Your task to perform on an android device: View the shopping cart on costco.com. Add "logitech g910" to the cart on costco.com Image 0: 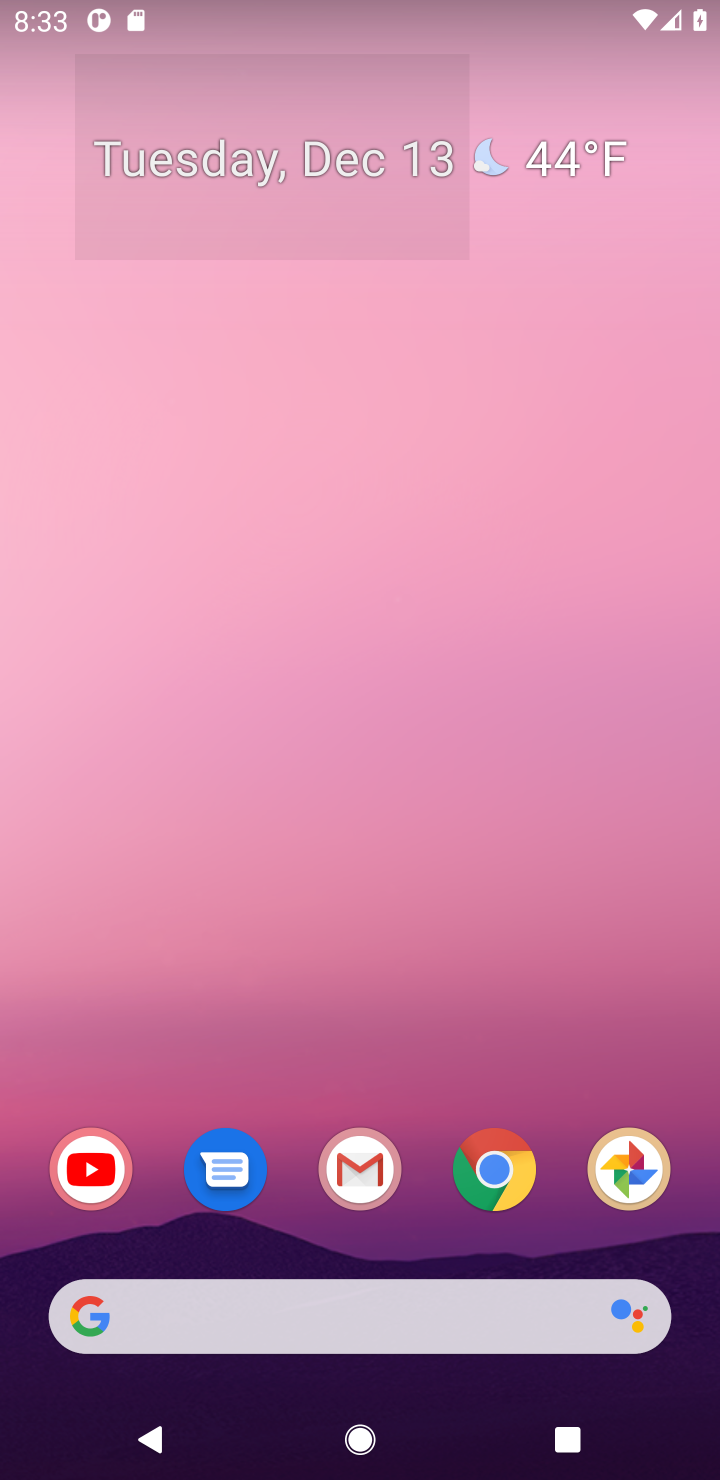
Step 0: click (476, 1197)
Your task to perform on an android device: View the shopping cart on costco.com. Add "logitech g910" to the cart on costco.com Image 1: 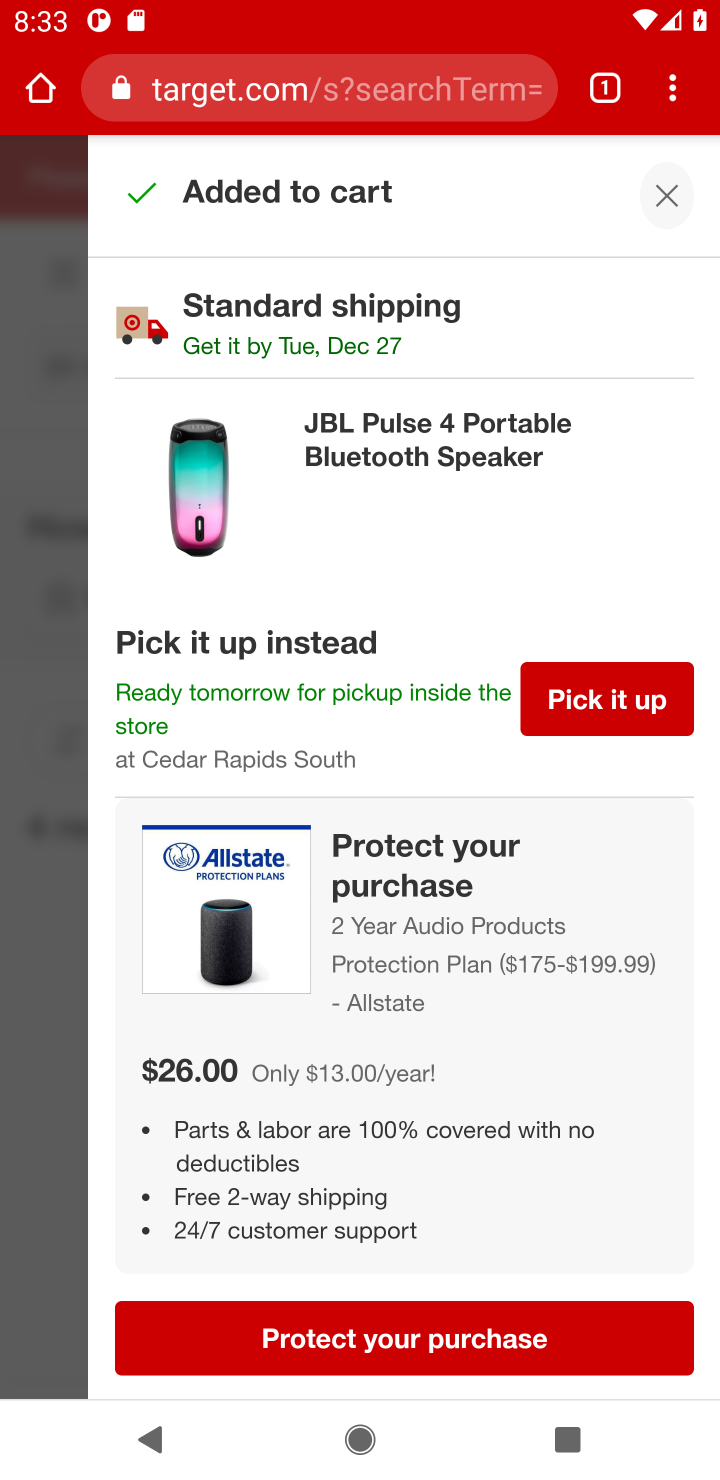
Step 1: click (663, 201)
Your task to perform on an android device: View the shopping cart on costco.com. Add "logitech g910" to the cart on costco.com Image 2: 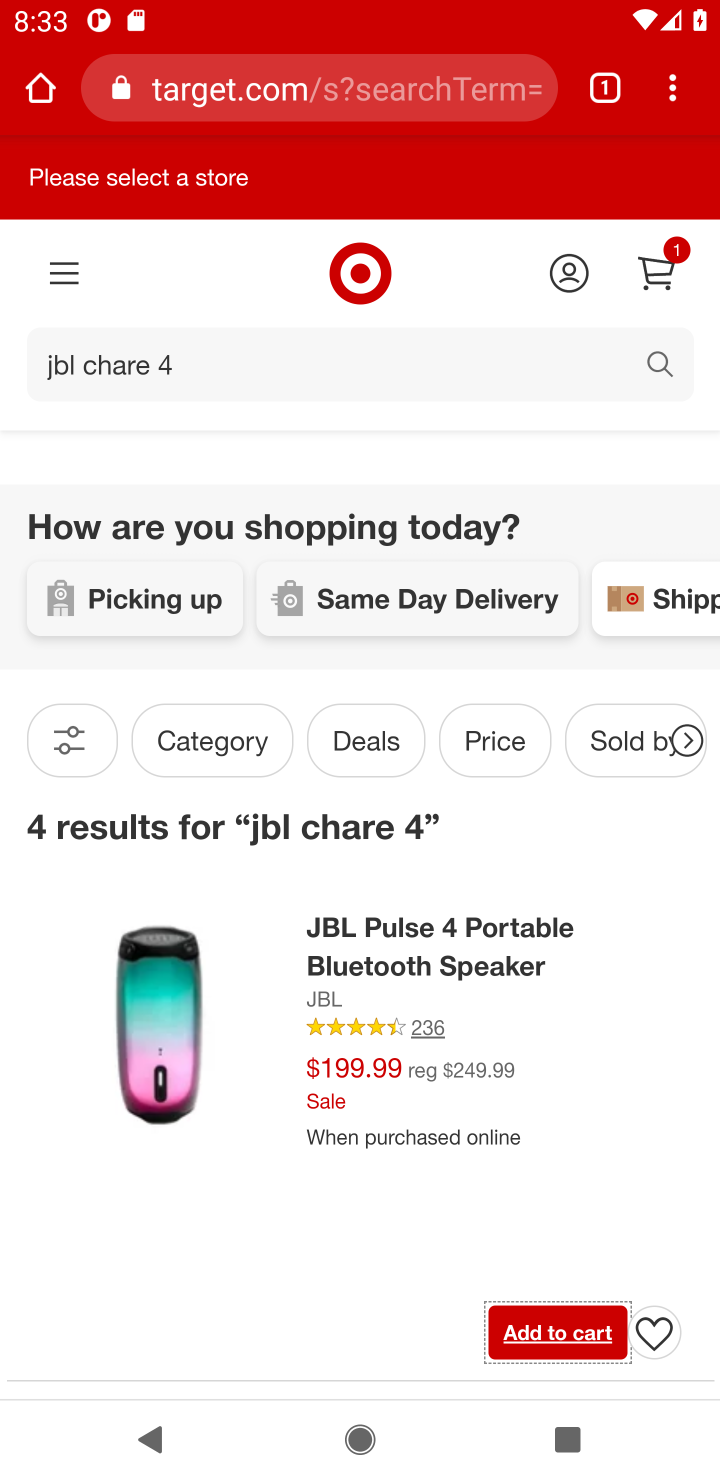
Step 2: click (289, 346)
Your task to perform on an android device: View the shopping cart on costco.com. Add "logitech g910" to the cart on costco.com Image 3: 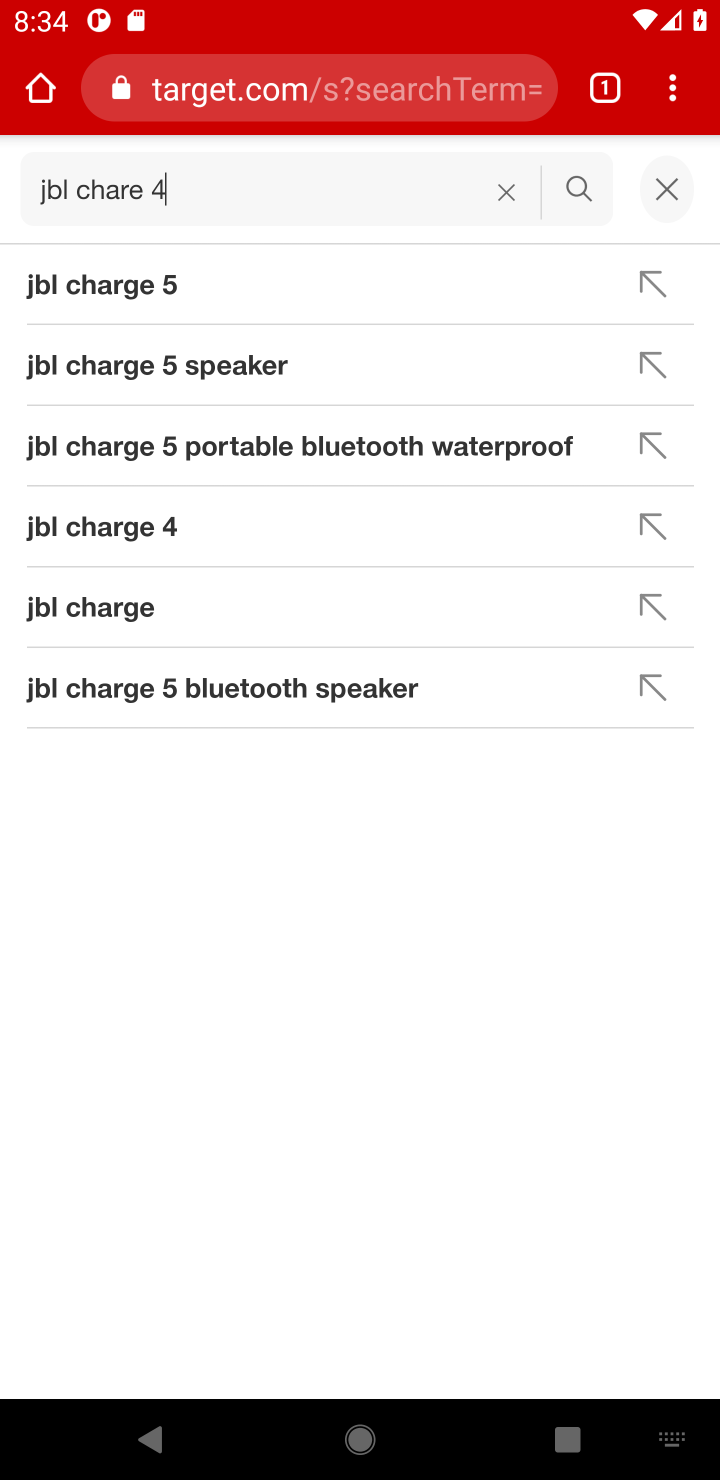
Step 3: type "logitech g910"
Your task to perform on an android device: View the shopping cart on costco.com. Add "logitech g910" to the cart on costco.com Image 4: 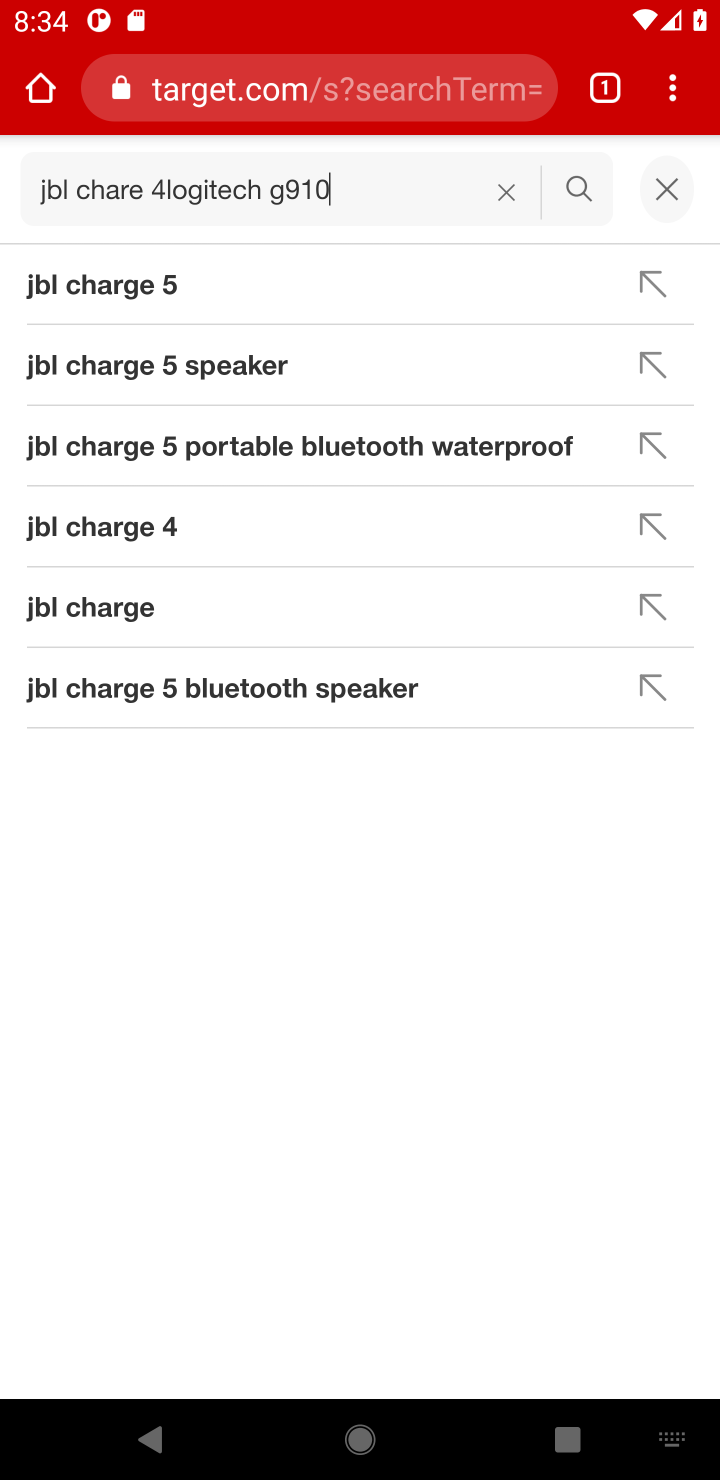
Step 4: click (500, 205)
Your task to perform on an android device: View the shopping cart on costco.com. Add "logitech g910" to the cart on costco.com Image 5: 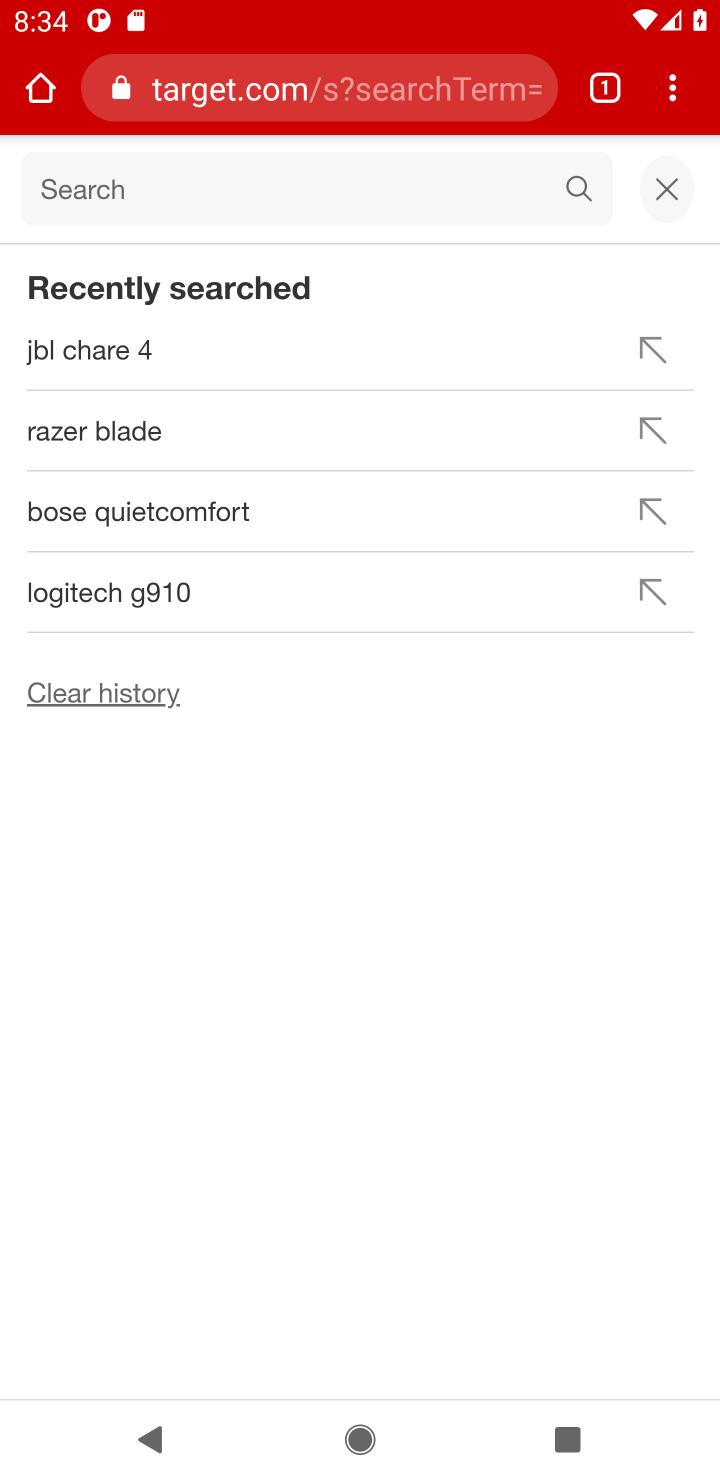
Step 5: type "logitech g910"
Your task to perform on an android device: View the shopping cart on costco.com. Add "logitech g910" to the cart on costco.com Image 6: 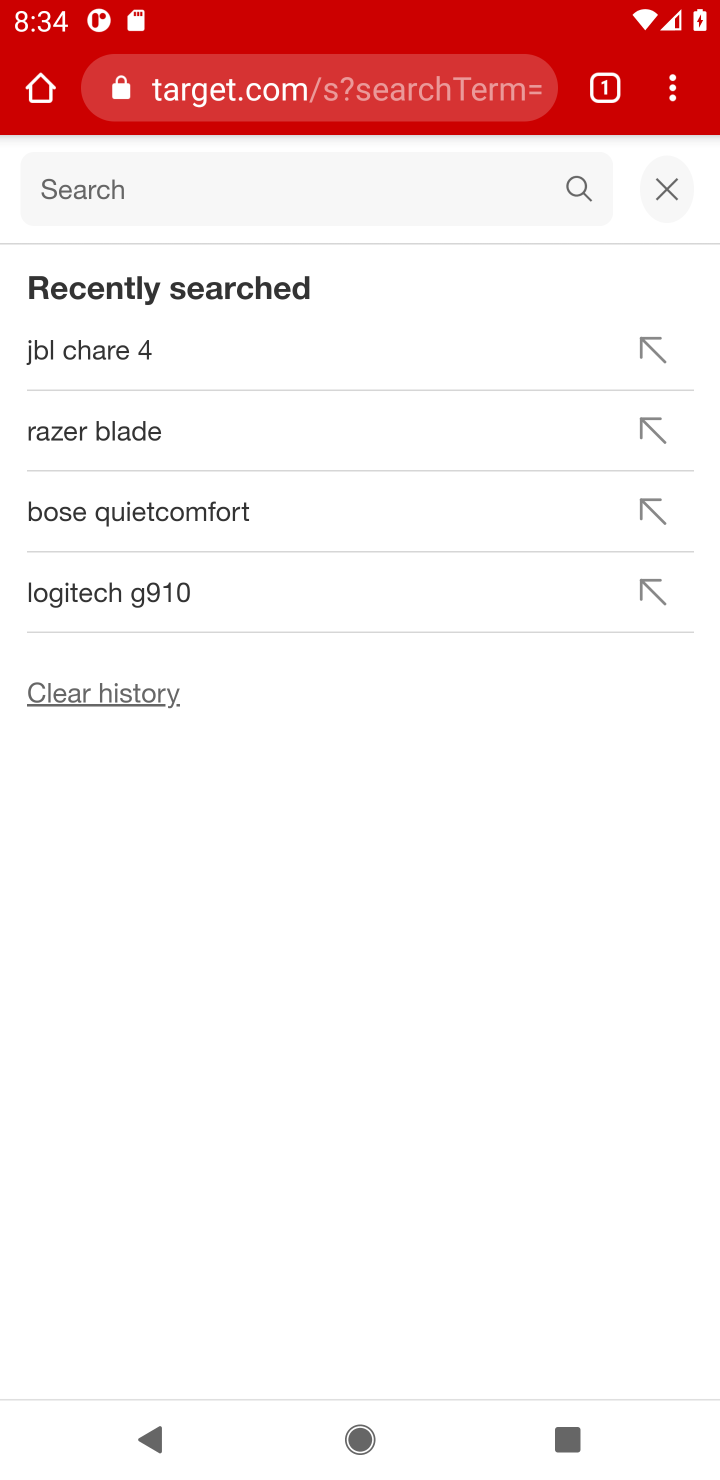
Step 6: click (189, 205)
Your task to perform on an android device: View the shopping cart on costco.com. Add "logitech g910" to the cart on costco.com Image 7: 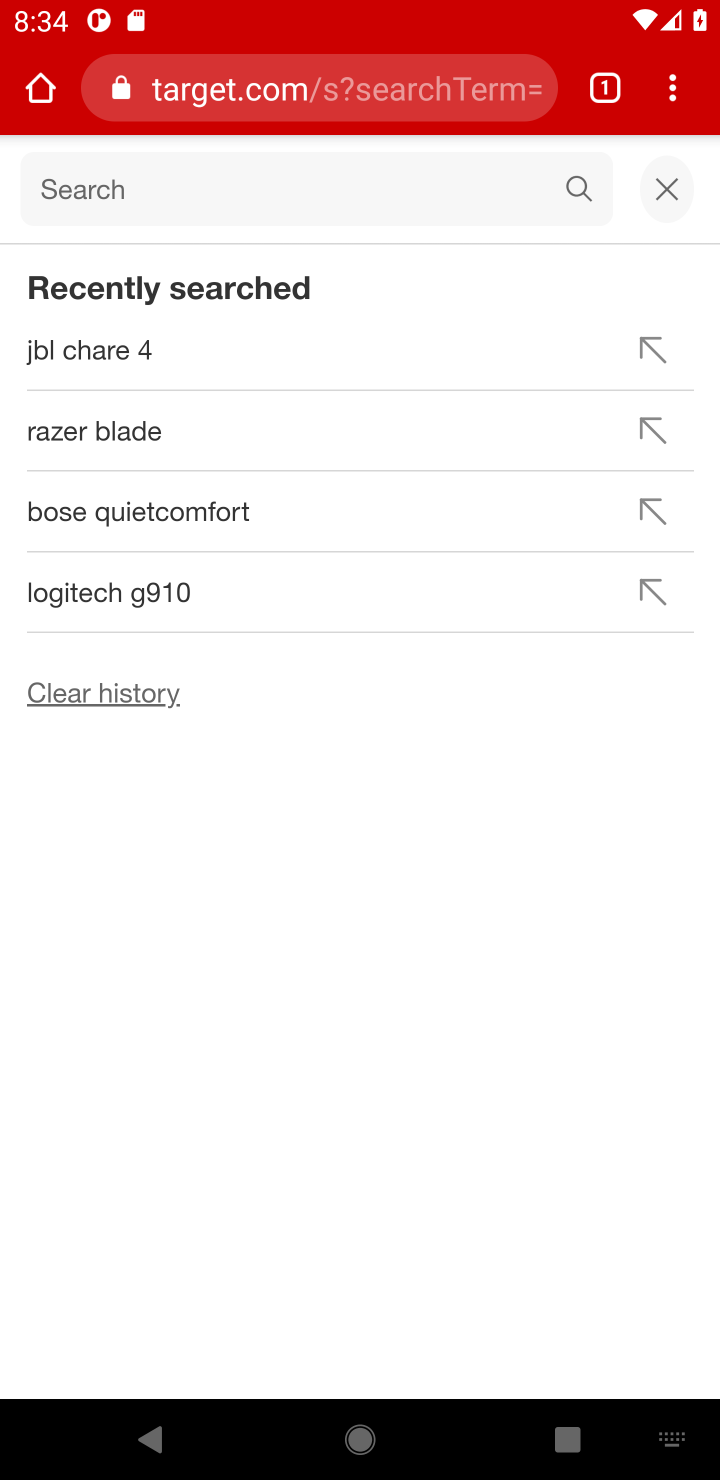
Step 7: type "logitech g910"
Your task to perform on an android device: View the shopping cart on costco.com. Add "logitech g910" to the cart on costco.com Image 8: 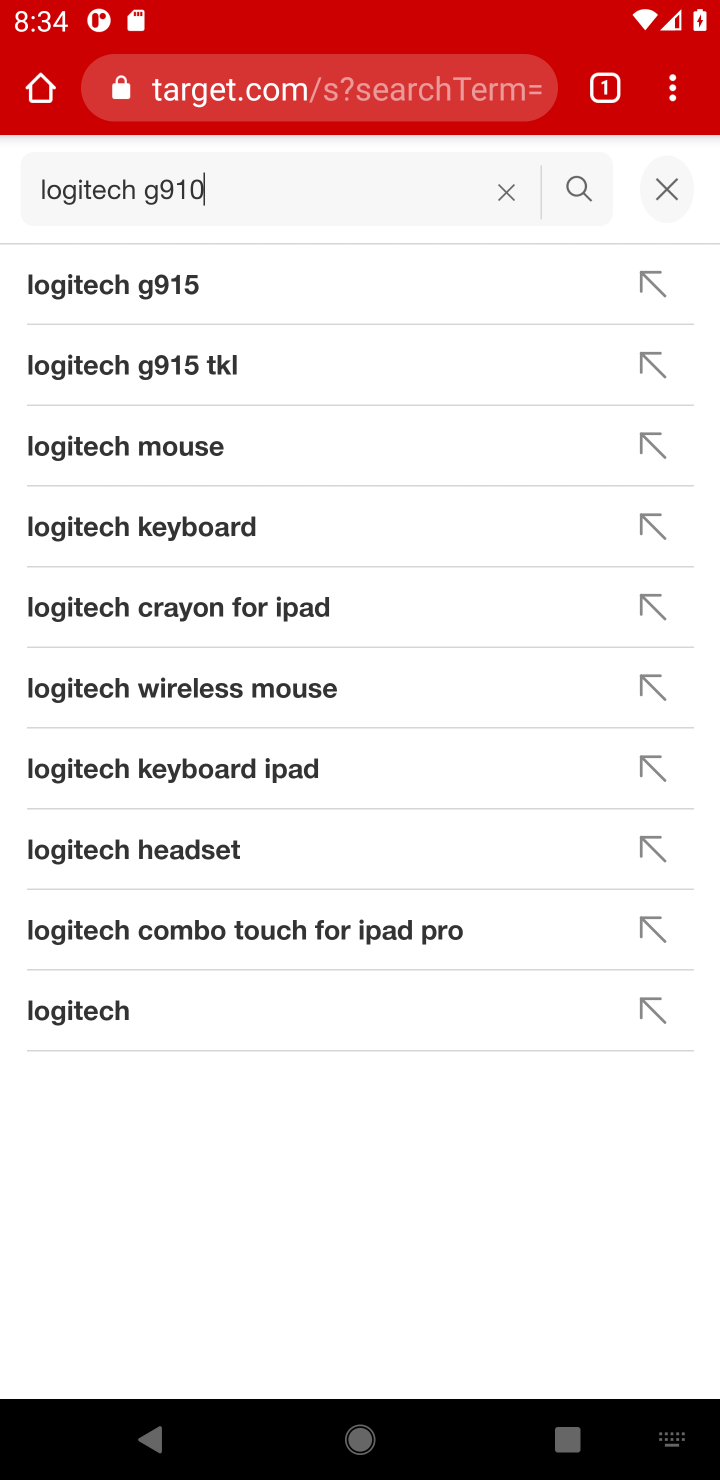
Step 8: click (575, 205)
Your task to perform on an android device: View the shopping cart on costco.com. Add "logitech g910" to the cart on costco.com Image 9: 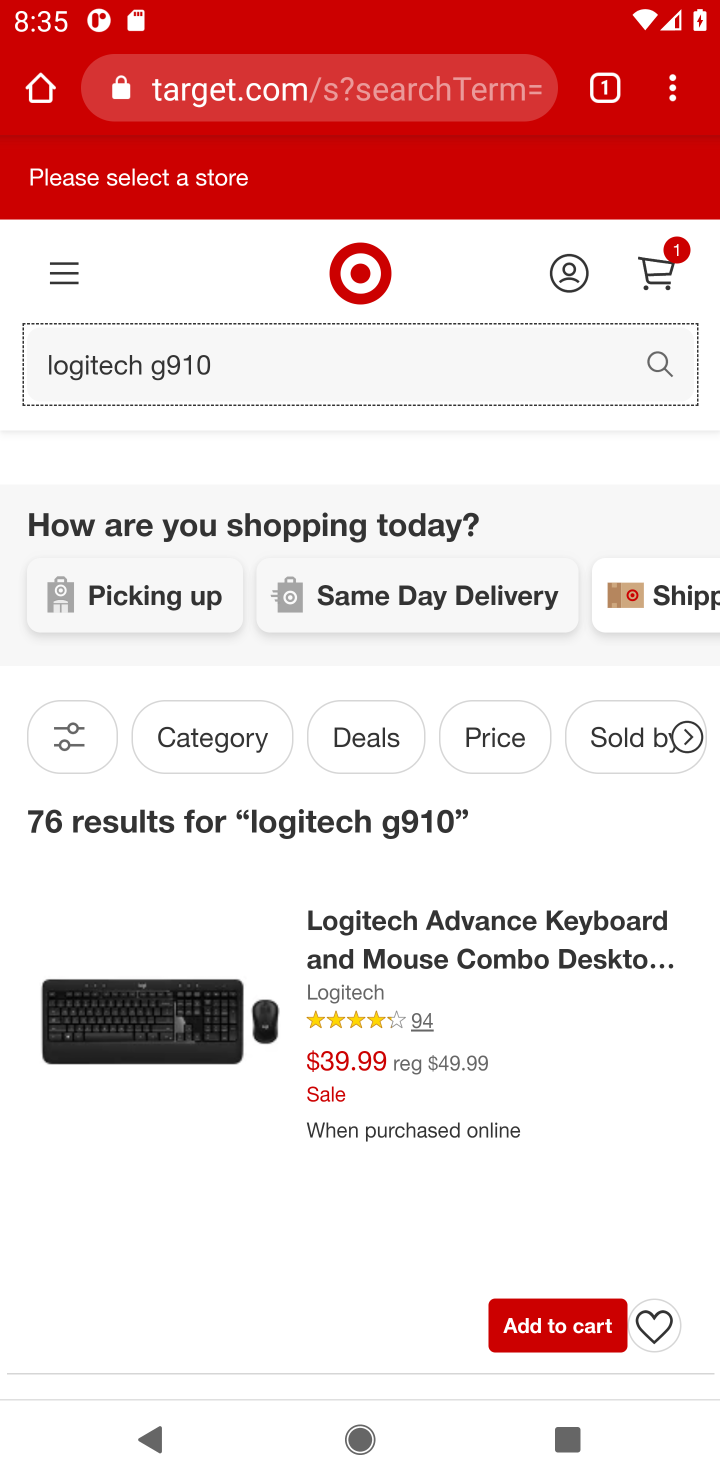
Step 9: click (534, 1331)
Your task to perform on an android device: View the shopping cart on costco.com. Add "logitech g910" to the cart on costco.com Image 10: 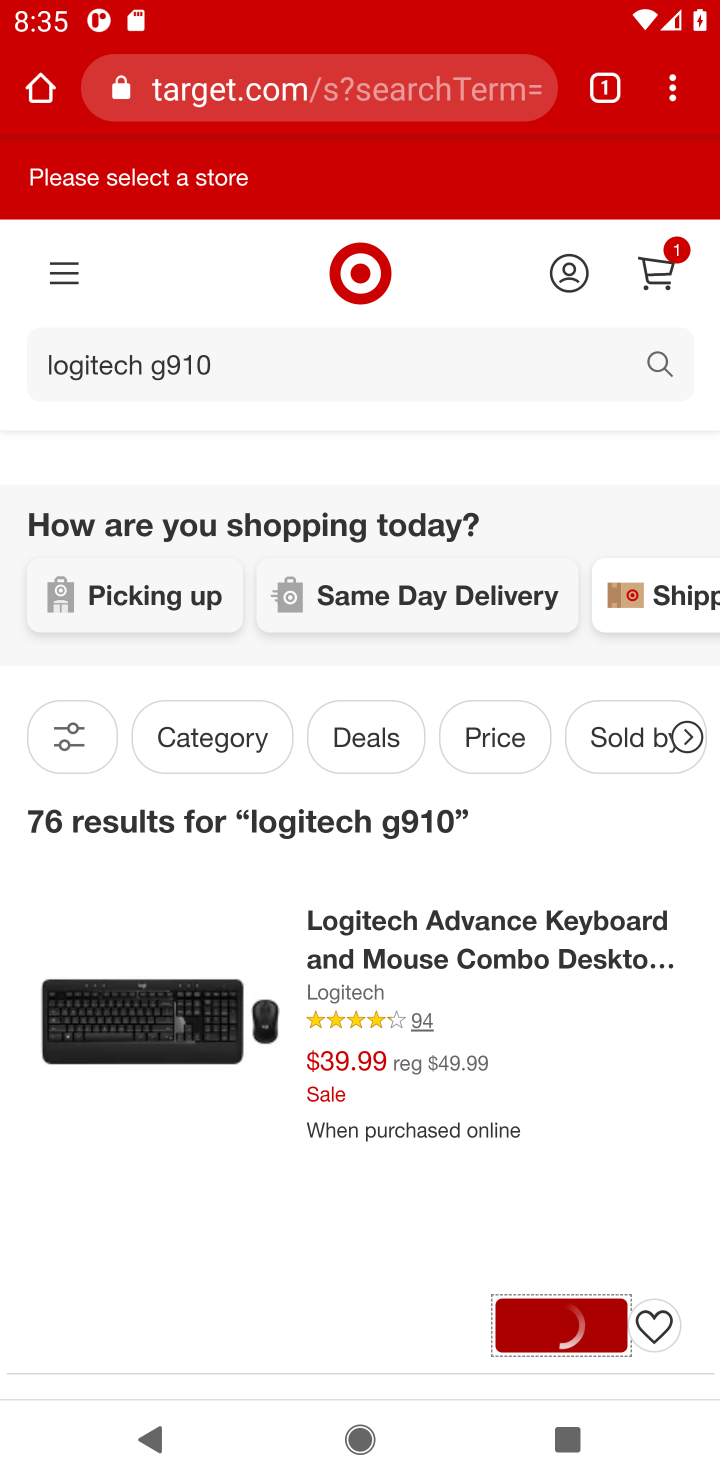
Step 10: task complete